Your task to perform on an android device: turn on location history Image 0: 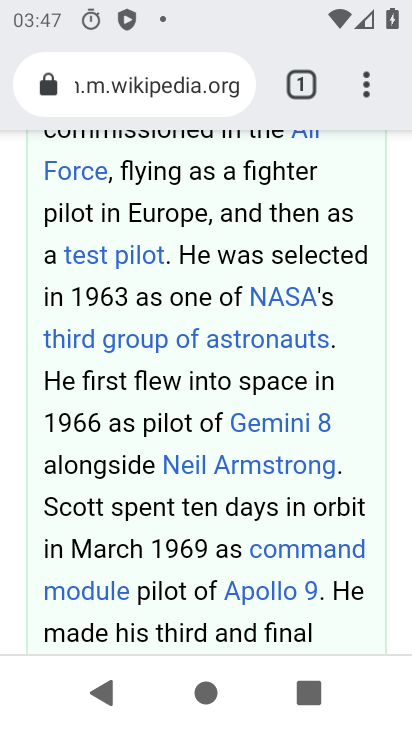
Step 0: press home button
Your task to perform on an android device: turn on location history Image 1: 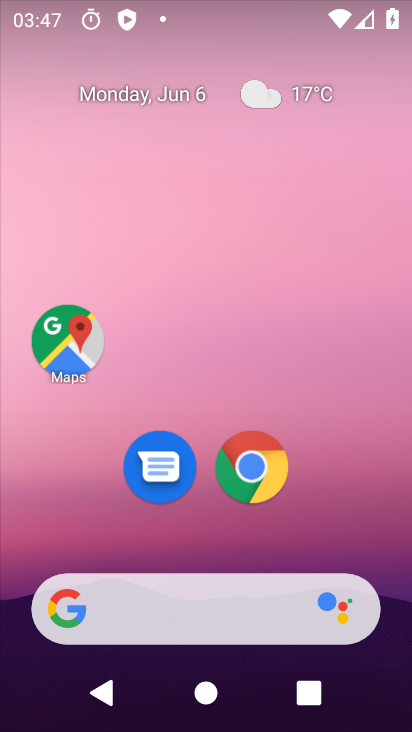
Step 1: drag from (209, 536) to (245, 79)
Your task to perform on an android device: turn on location history Image 2: 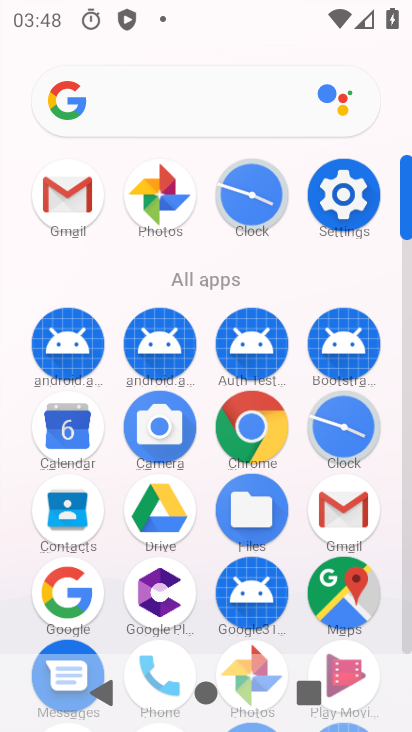
Step 2: click (344, 589)
Your task to perform on an android device: turn on location history Image 3: 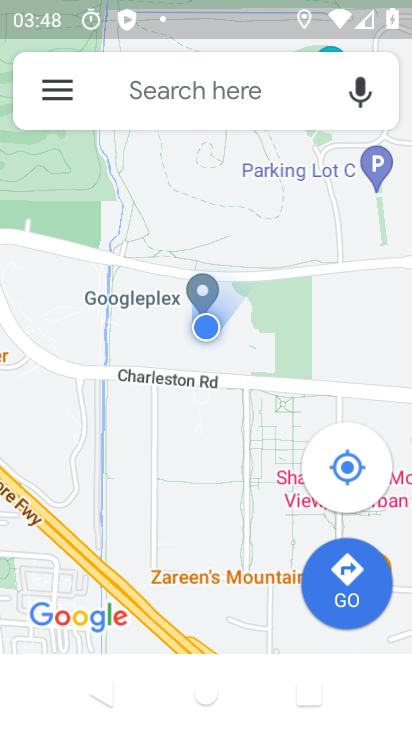
Step 3: click (57, 99)
Your task to perform on an android device: turn on location history Image 4: 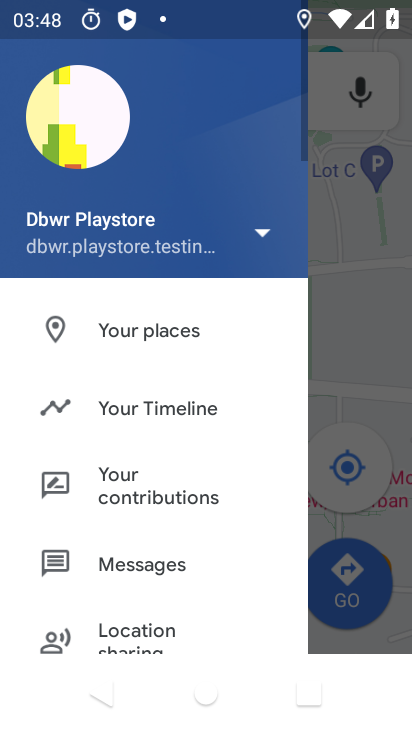
Step 4: drag from (143, 588) to (189, 92)
Your task to perform on an android device: turn on location history Image 5: 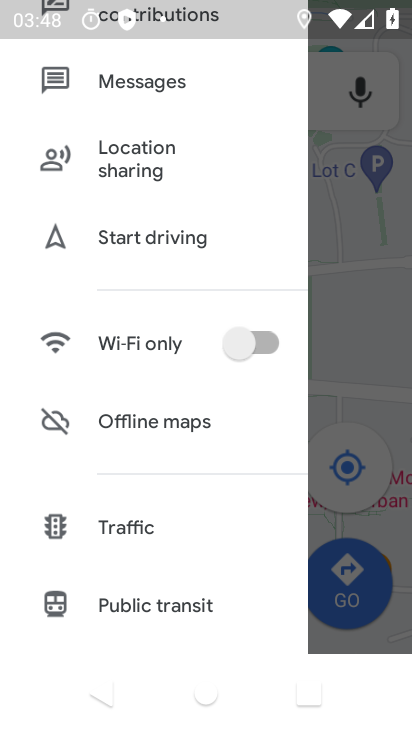
Step 5: drag from (163, 565) to (215, 33)
Your task to perform on an android device: turn on location history Image 6: 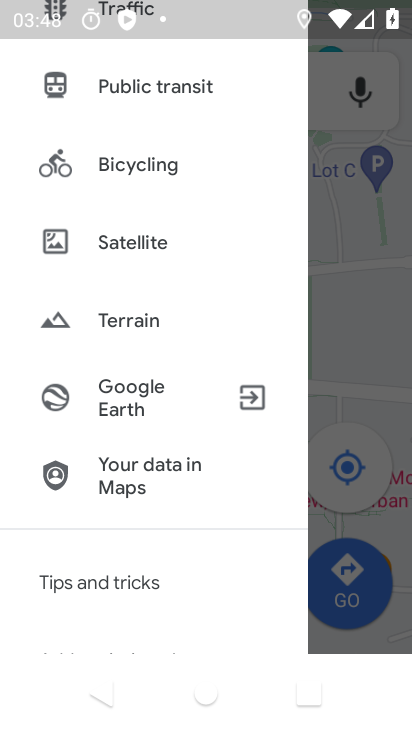
Step 6: drag from (155, 582) to (195, 62)
Your task to perform on an android device: turn on location history Image 7: 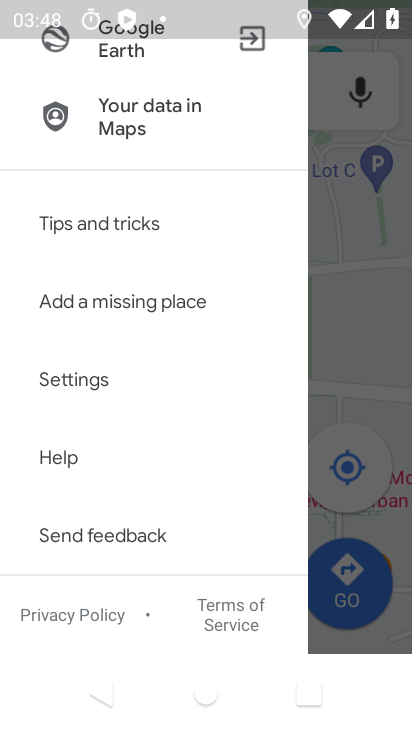
Step 7: click (114, 371)
Your task to perform on an android device: turn on location history Image 8: 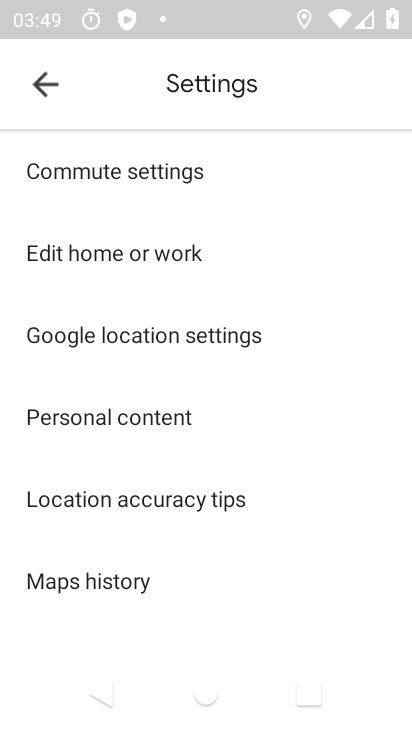
Step 8: click (269, 328)
Your task to perform on an android device: turn on location history Image 9: 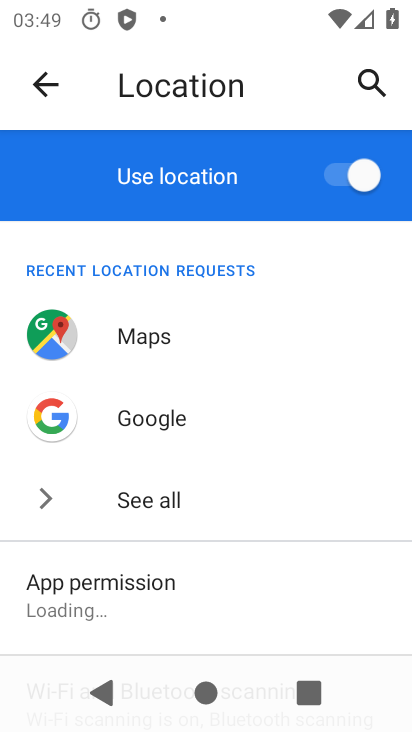
Step 9: drag from (205, 474) to (211, 128)
Your task to perform on an android device: turn on location history Image 10: 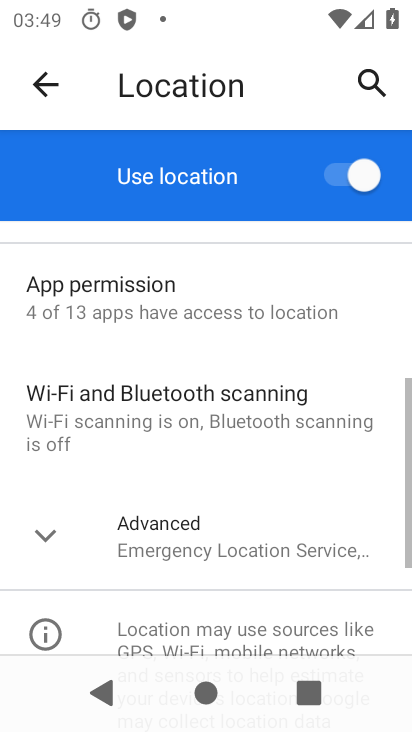
Step 10: click (38, 534)
Your task to perform on an android device: turn on location history Image 11: 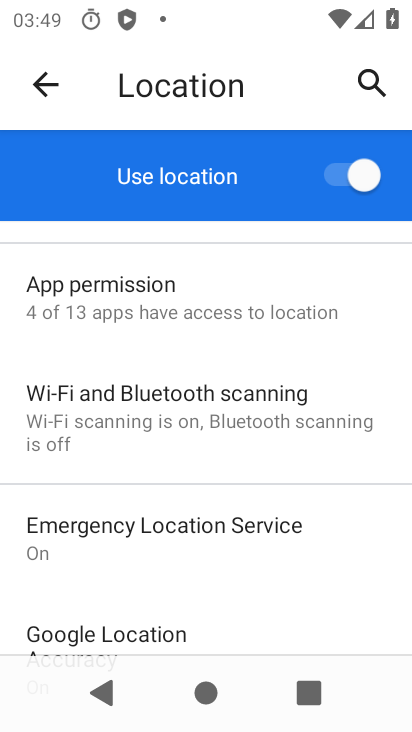
Step 11: drag from (254, 597) to (275, 229)
Your task to perform on an android device: turn on location history Image 12: 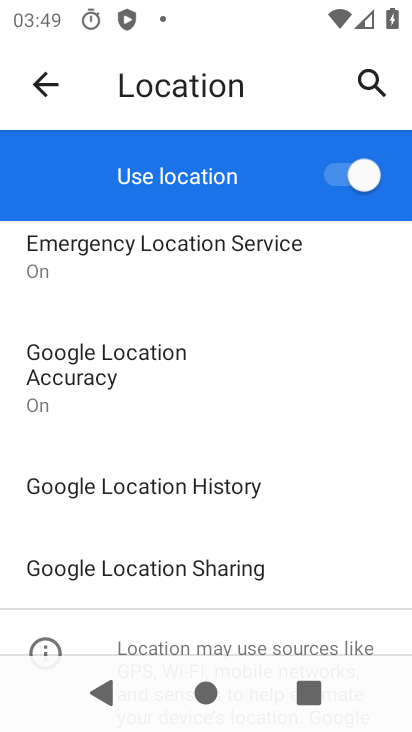
Step 12: click (280, 483)
Your task to perform on an android device: turn on location history Image 13: 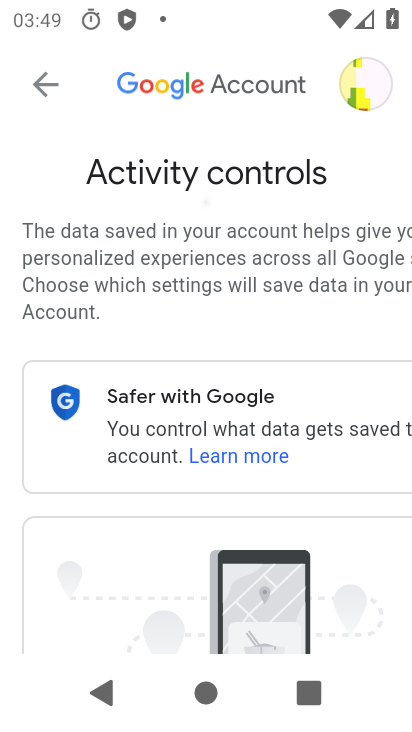
Step 13: drag from (184, 541) to (228, 143)
Your task to perform on an android device: turn on location history Image 14: 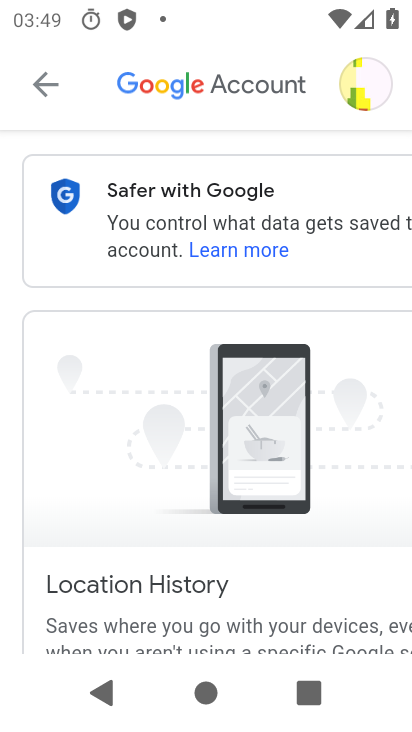
Step 14: drag from (228, 550) to (283, 139)
Your task to perform on an android device: turn on location history Image 15: 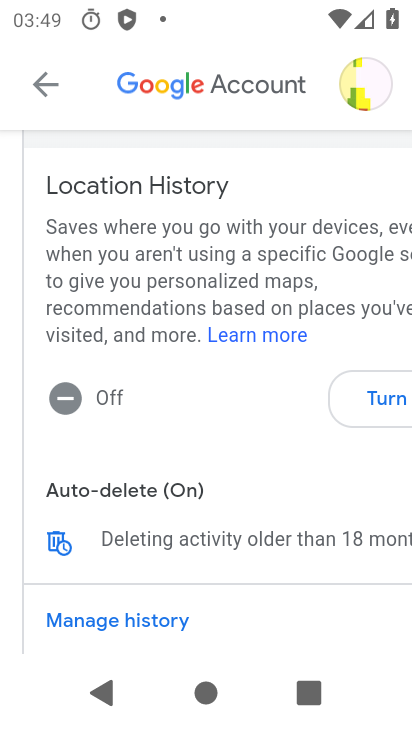
Step 15: click (383, 393)
Your task to perform on an android device: turn on location history Image 16: 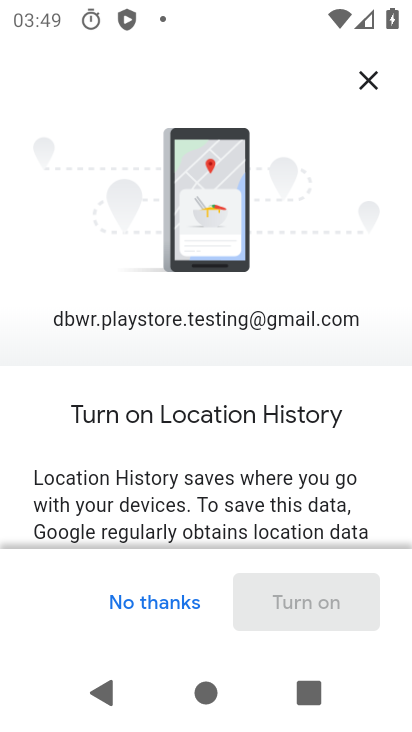
Step 16: drag from (285, 498) to (288, 12)
Your task to perform on an android device: turn on location history Image 17: 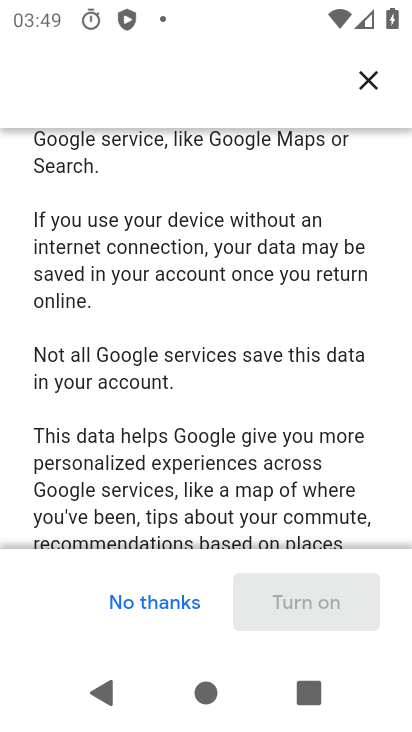
Step 17: drag from (280, 503) to (290, 63)
Your task to perform on an android device: turn on location history Image 18: 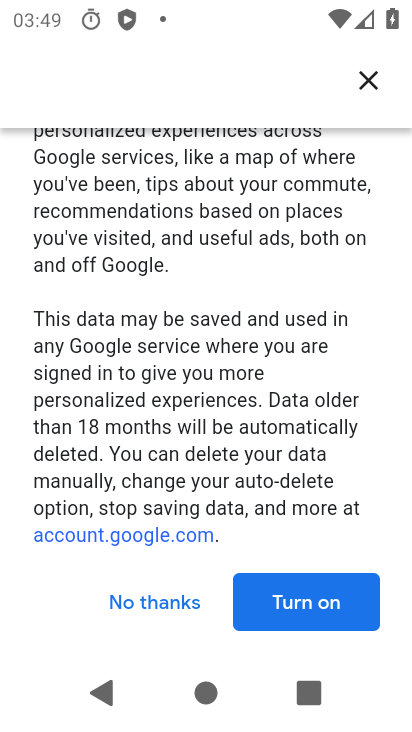
Step 18: click (312, 599)
Your task to perform on an android device: turn on location history Image 19: 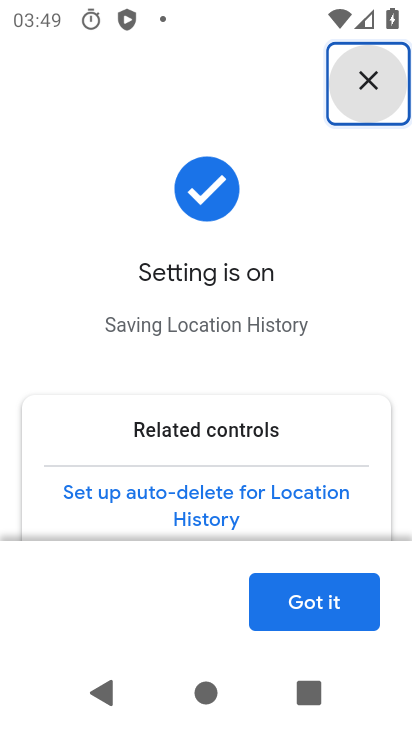
Step 19: click (324, 600)
Your task to perform on an android device: turn on location history Image 20: 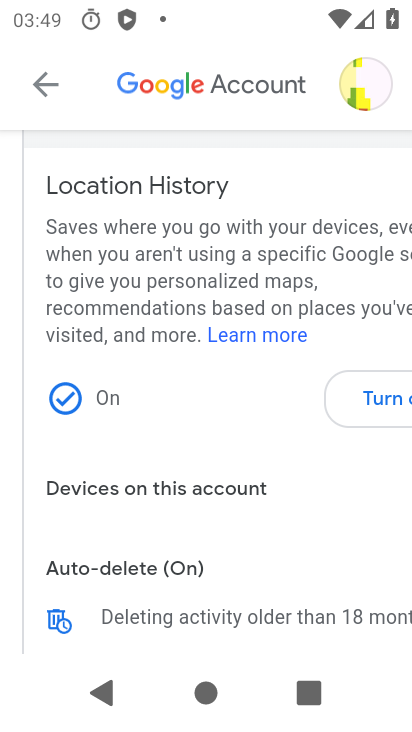
Step 20: task complete